Your task to perform on an android device: open a bookmark in the chrome app Image 0: 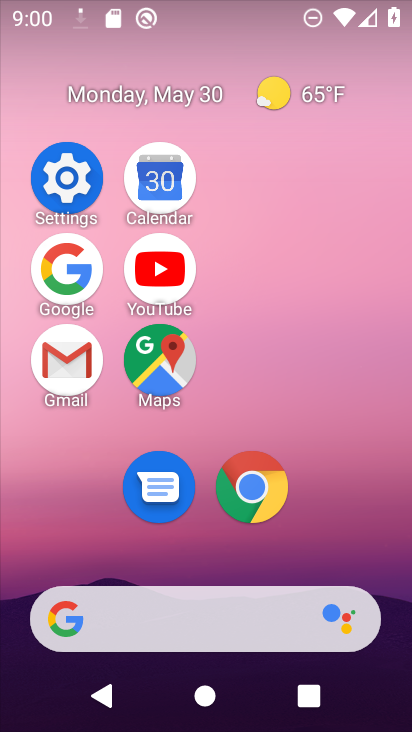
Step 0: click (256, 473)
Your task to perform on an android device: open a bookmark in the chrome app Image 1: 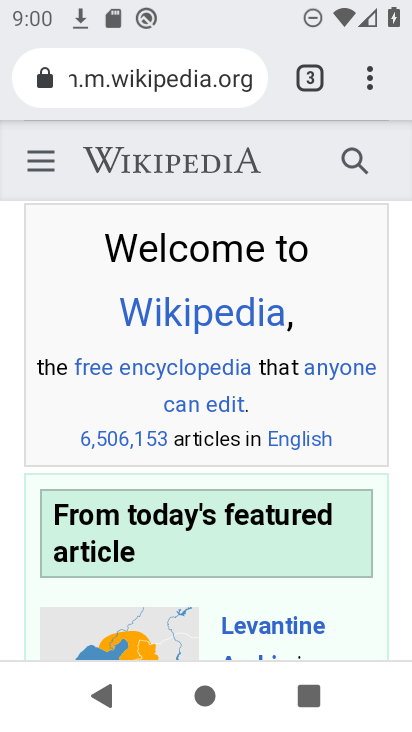
Step 1: click (362, 55)
Your task to perform on an android device: open a bookmark in the chrome app Image 2: 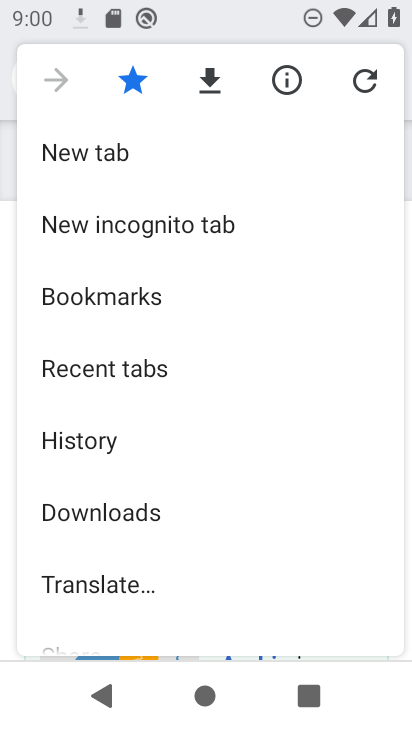
Step 2: click (183, 311)
Your task to perform on an android device: open a bookmark in the chrome app Image 3: 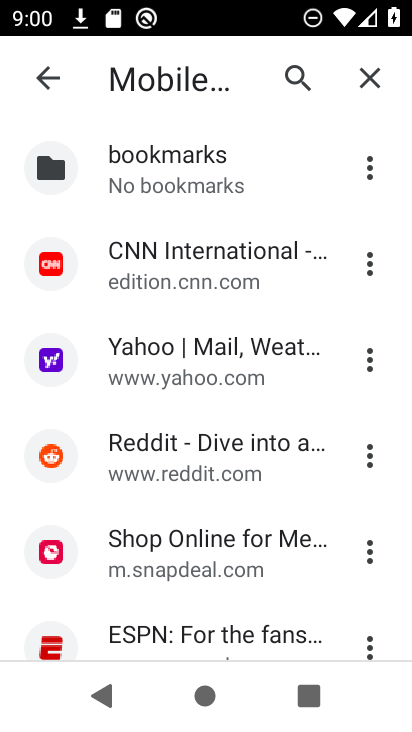
Step 3: task complete